Your task to perform on an android device: delete browsing data in the chrome app Image 0: 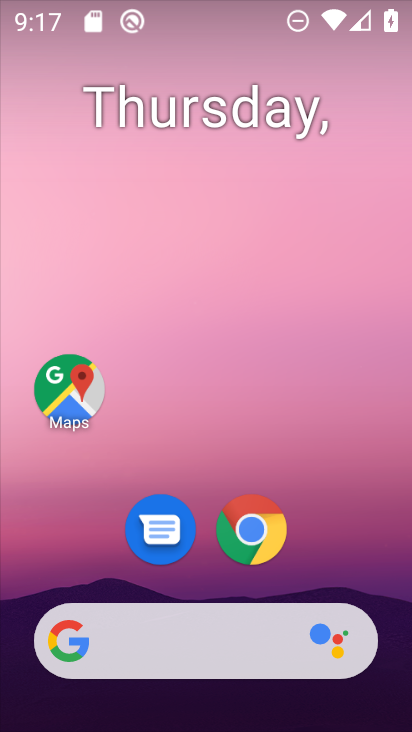
Step 0: click (249, 535)
Your task to perform on an android device: delete browsing data in the chrome app Image 1: 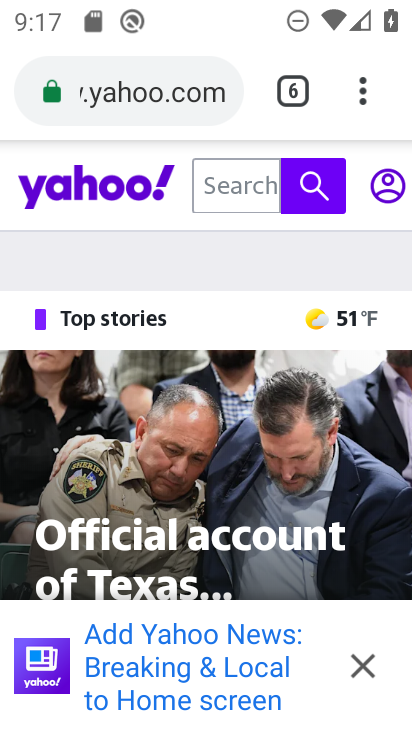
Step 1: click (361, 98)
Your task to perform on an android device: delete browsing data in the chrome app Image 2: 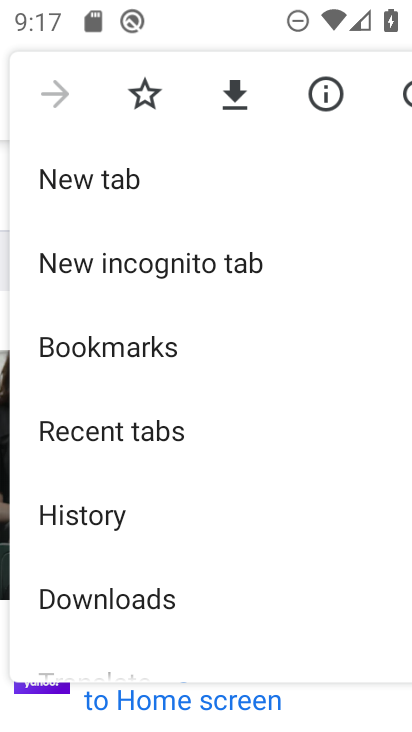
Step 2: drag from (130, 631) to (119, 306)
Your task to perform on an android device: delete browsing data in the chrome app Image 3: 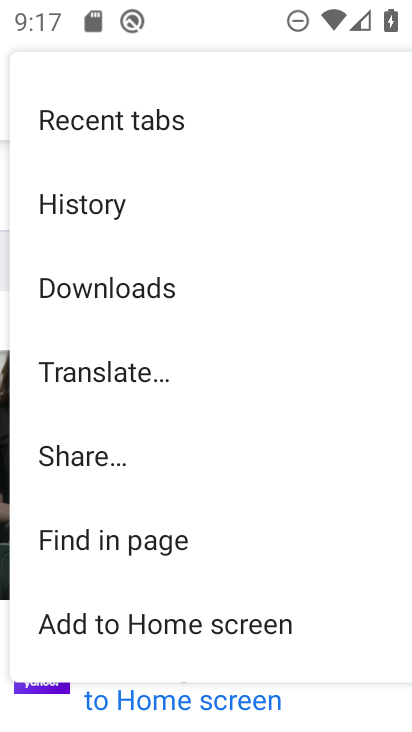
Step 3: click (87, 200)
Your task to perform on an android device: delete browsing data in the chrome app Image 4: 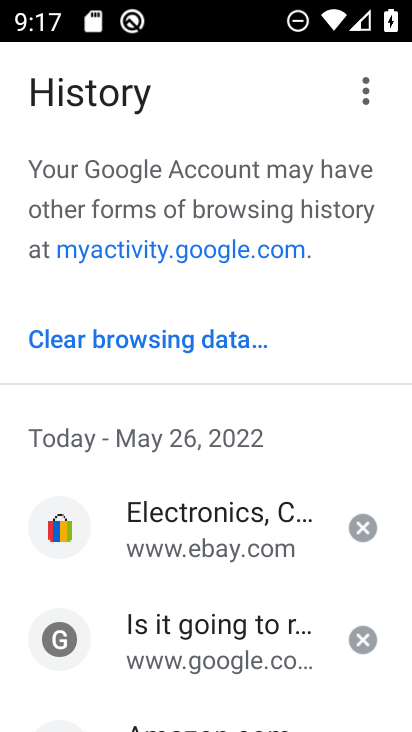
Step 4: click (153, 340)
Your task to perform on an android device: delete browsing data in the chrome app Image 5: 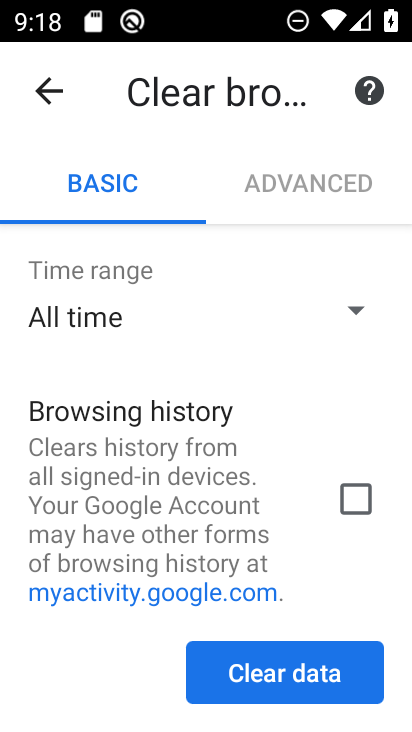
Step 5: drag from (290, 591) to (281, 525)
Your task to perform on an android device: delete browsing data in the chrome app Image 6: 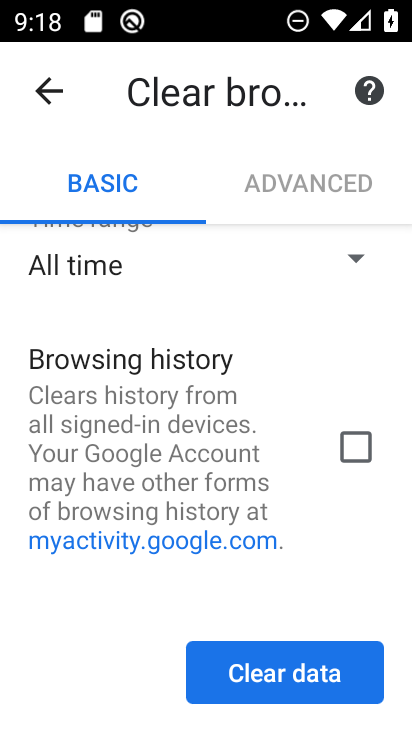
Step 6: click (272, 338)
Your task to perform on an android device: delete browsing data in the chrome app Image 7: 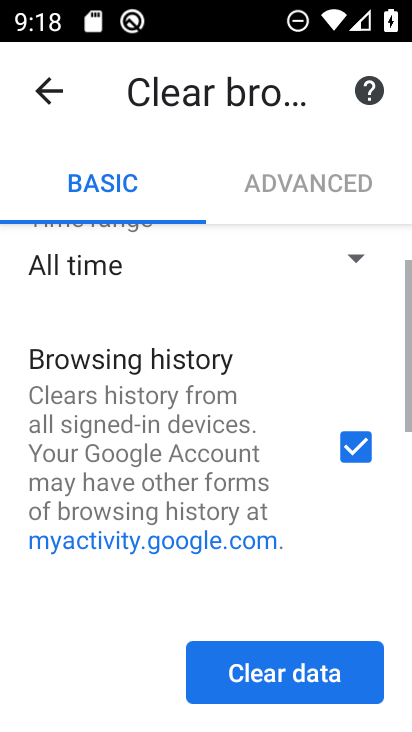
Step 7: drag from (307, 554) to (287, 232)
Your task to perform on an android device: delete browsing data in the chrome app Image 8: 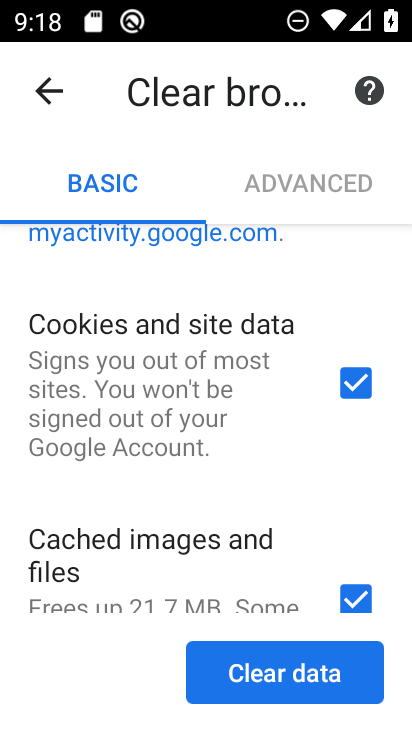
Step 8: click (354, 385)
Your task to perform on an android device: delete browsing data in the chrome app Image 9: 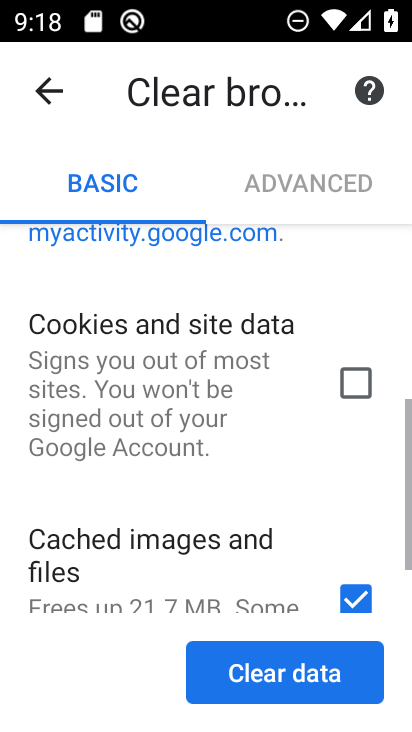
Step 9: click (358, 595)
Your task to perform on an android device: delete browsing data in the chrome app Image 10: 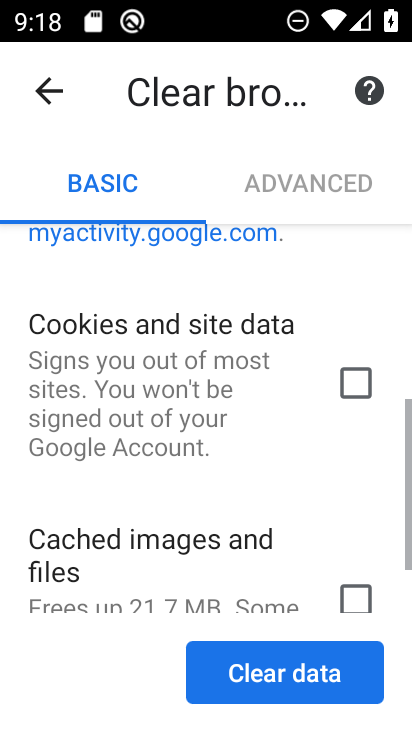
Step 10: click (283, 680)
Your task to perform on an android device: delete browsing data in the chrome app Image 11: 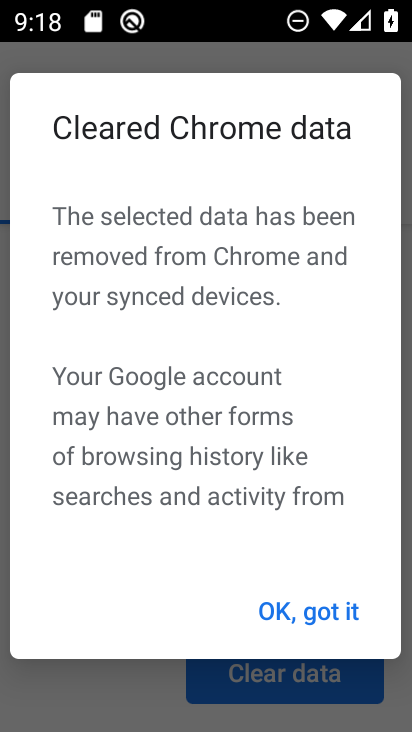
Step 11: click (332, 607)
Your task to perform on an android device: delete browsing data in the chrome app Image 12: 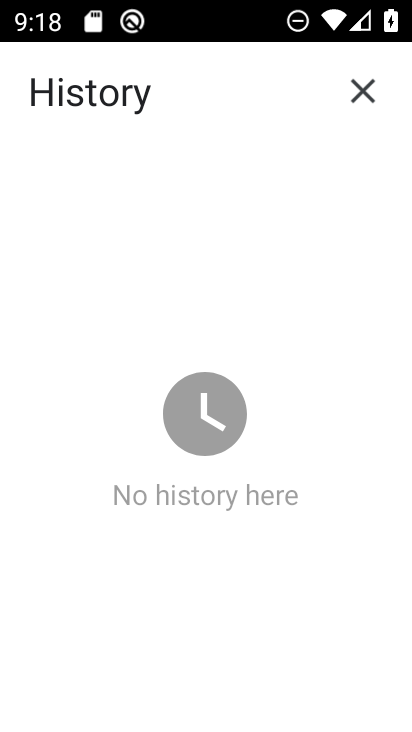
Step 12: task complete